Your task to perform on an android device: Search for flights from Helsinki to Seoul Image 0: 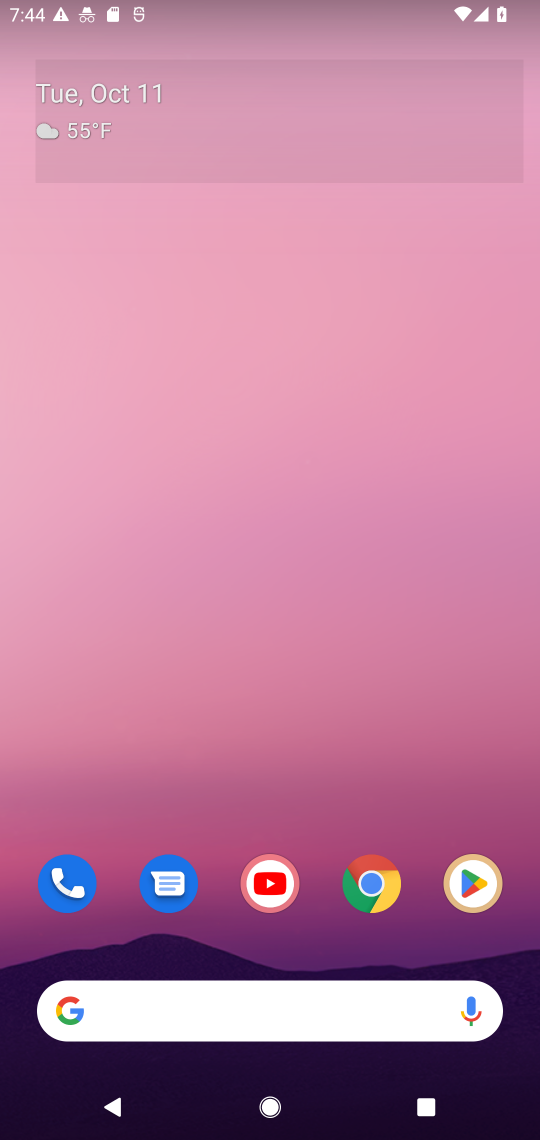
Step 0: drag from (328, 953) to (186, 0)
Your task to perform on an android device: Search for flights from Helsinki to Seoul Image 1: 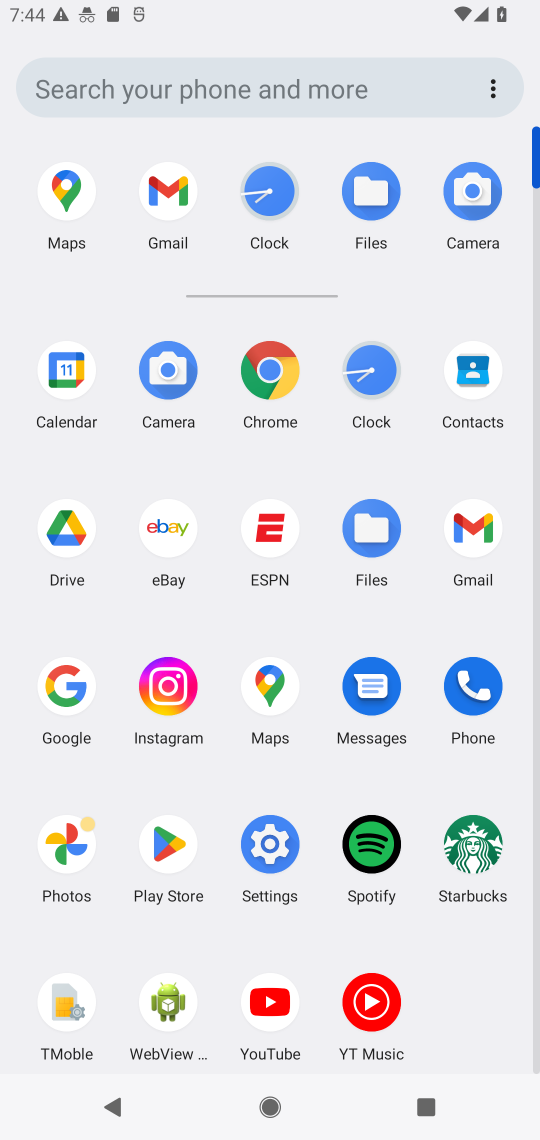
Step 1: click (275, 374)
Your task to perform on an android device: Search for flights from Helsinki to Seoul Image 2: 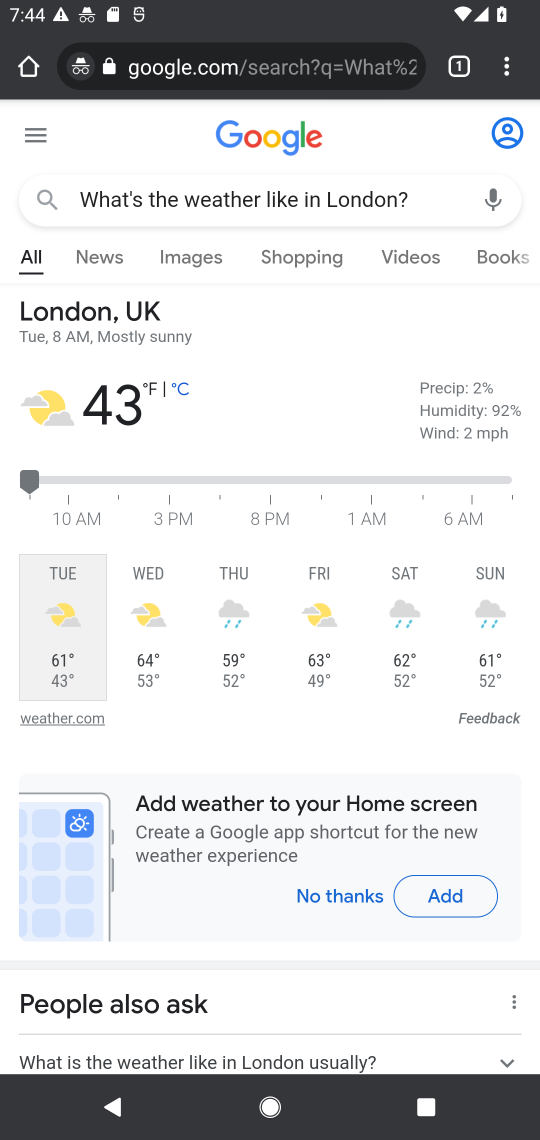
Step 2: click (263, 77)
Your task to perform on an android device: Search for flights from Helsinki to Seoul Image 3: 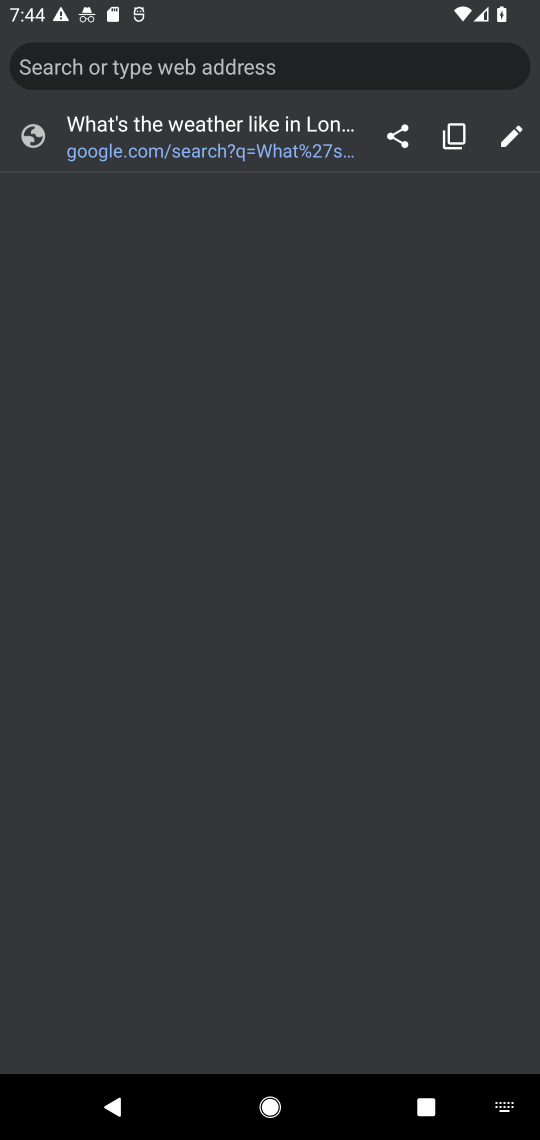
Step 3: type "flights from Helsinki to Seoul"
Your task to perform on an android device: Search for flights from Helsinki to Seoul Image 4: 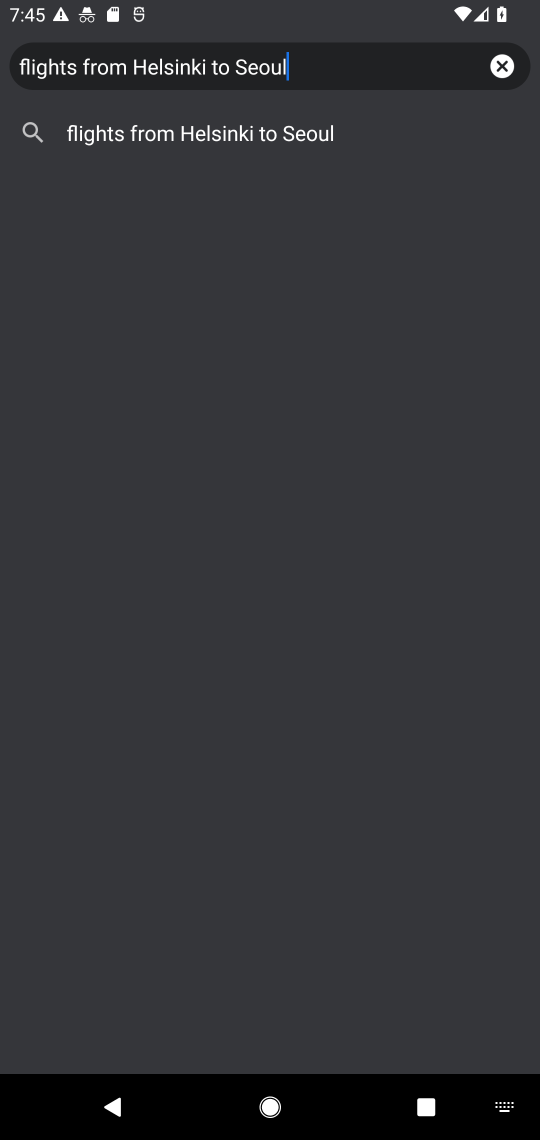
Step 4: press enter
Your task to perform on an android device: Search for flights from Helsinki to Seoul Image 5: 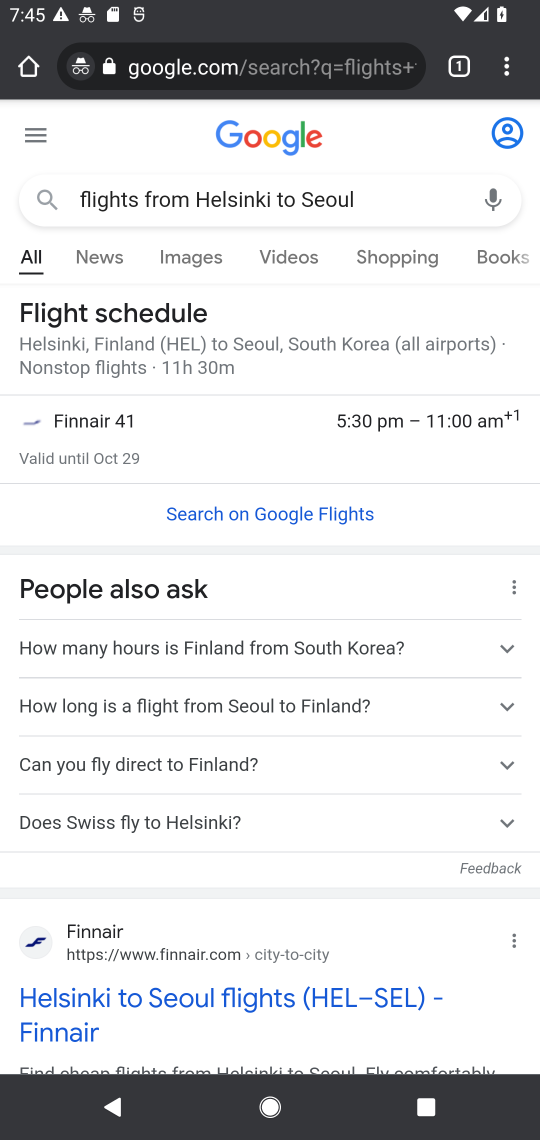
Step 5: task complete